Your task to perform on an android device: Go to sound settings Image 0: 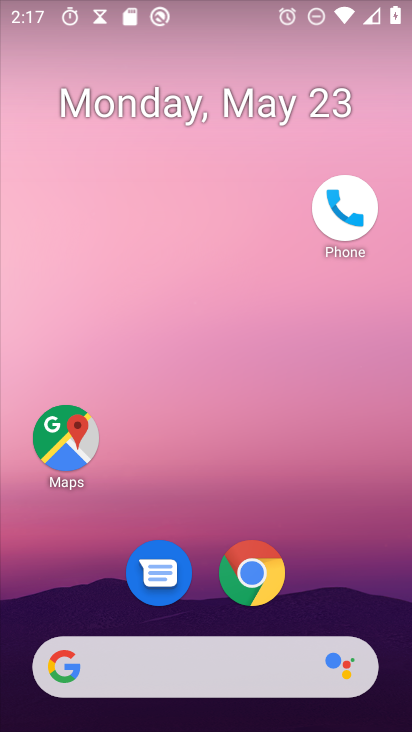
Step 0: drag from (170, 673) to (279, 156)
Your task to perform on an android device: Go to sound settings Image 1: 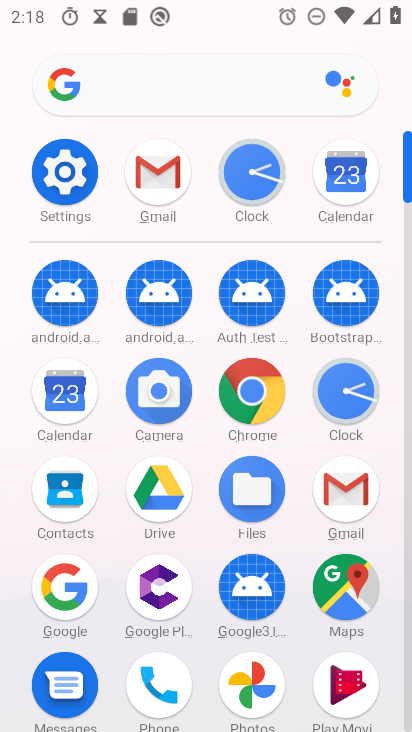
Step 1: click (56, 183)
Your task to perform on an android device: Go to sound settings Image 2: 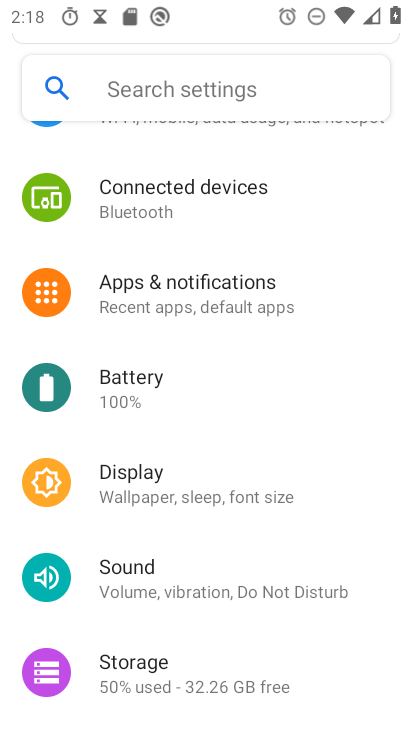
Step 2: click (119, 571)
Your task to perform on an android device: Go to sound settings Image 3: 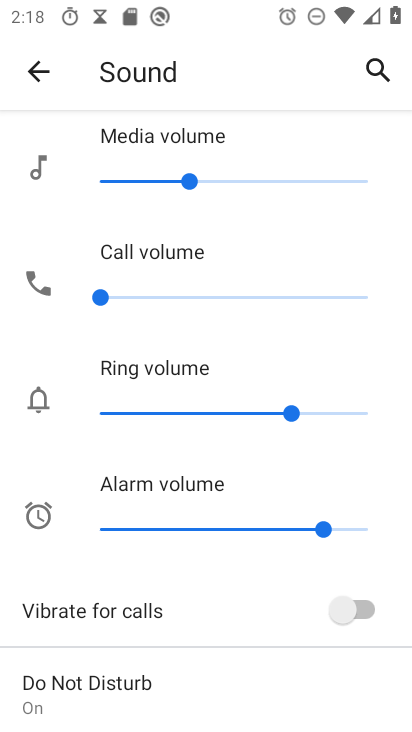
Step 3: task complete